Your task to perform on an android device: Go to network settings Image 0: 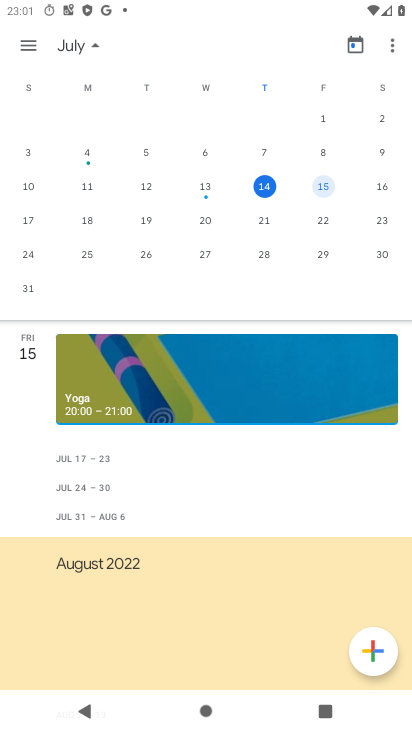
Step 0: press home button
Your task to perform on an android device: Go to network settings Image 1: 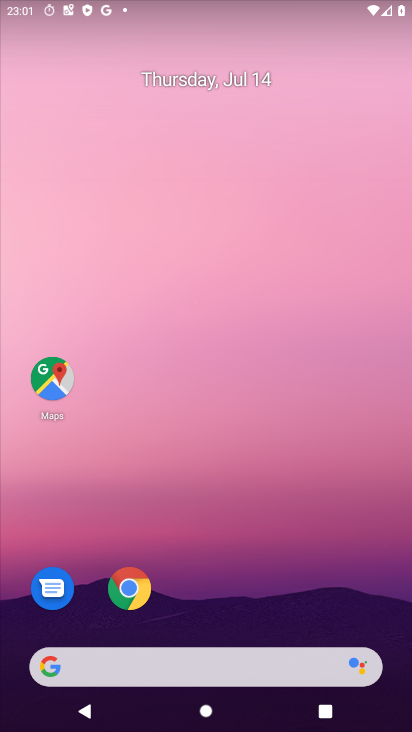
Step 1: drag from (217, 629) to (293, 138)
Your task to perform on an android device: Go to network settings Image 2: 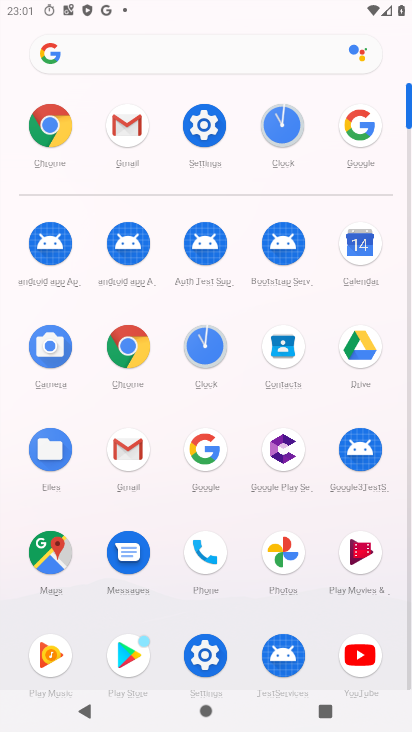
Step 2: click (207, 126)
Your task to perform on an android device: Go to network settings Image 3: 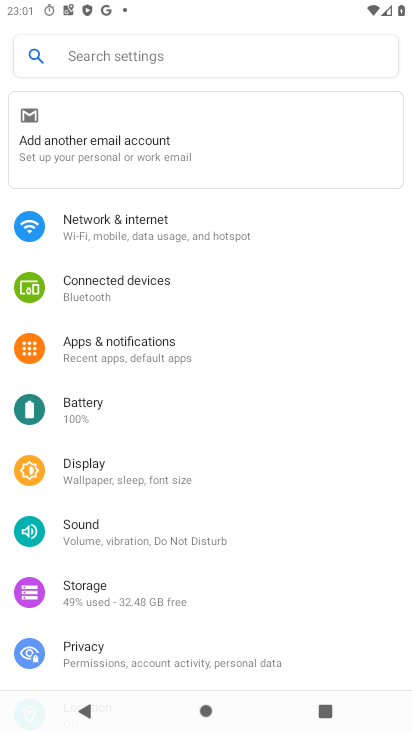
Step 3: click (135, 222)
Your task to perform on an android device: Go to network settings Image 4: 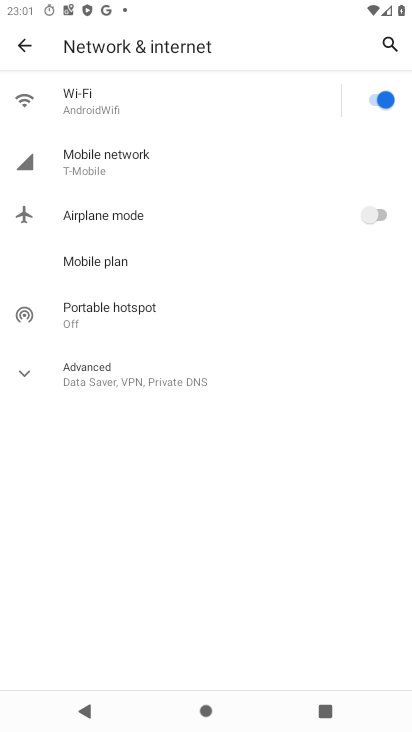
Step 4: click (113, 162)
Your task to perform on an android device: Go to network settings Image 5: 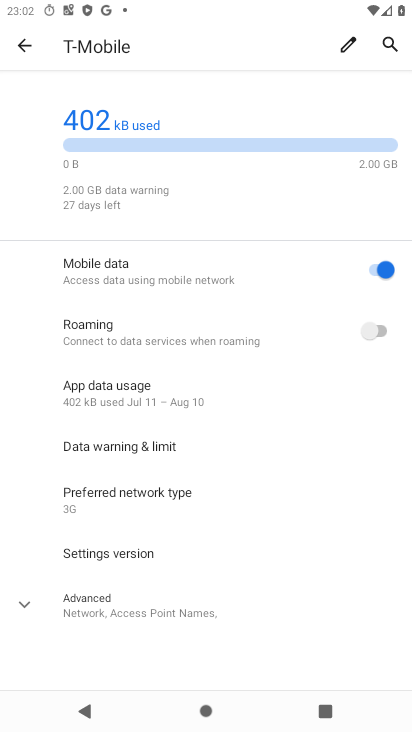
Step 5: task complete